Your task to perform on an android device: Open sound settings Image 0: 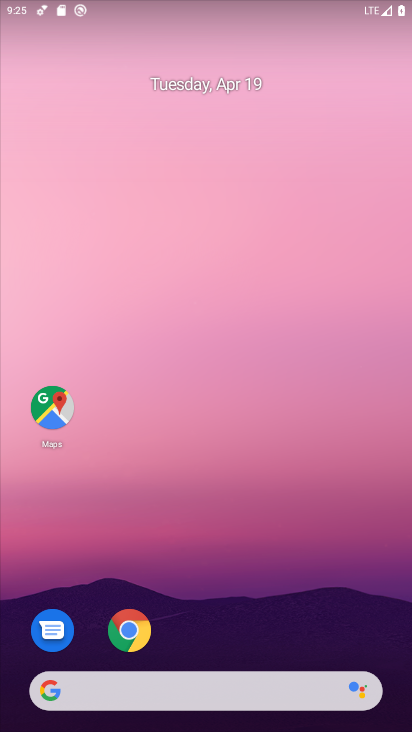
Step 0: drag from (190, 663) to (246, 131)
Your task to perform on an android device: Open sound settings Image 1: 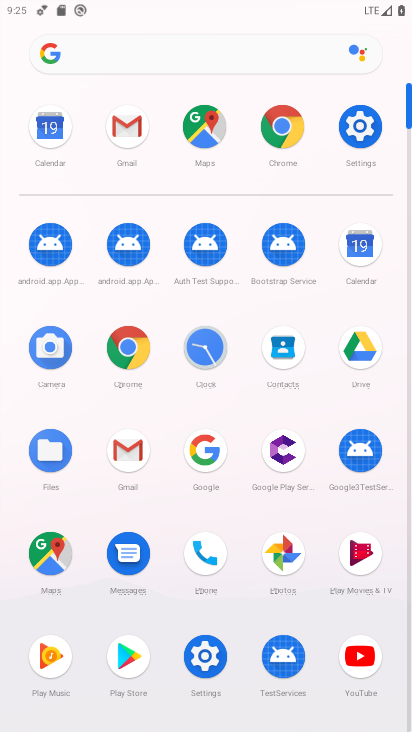
Step 1: click (367, 132)
Your task to perform on an android device: Open sound settings Image 2: 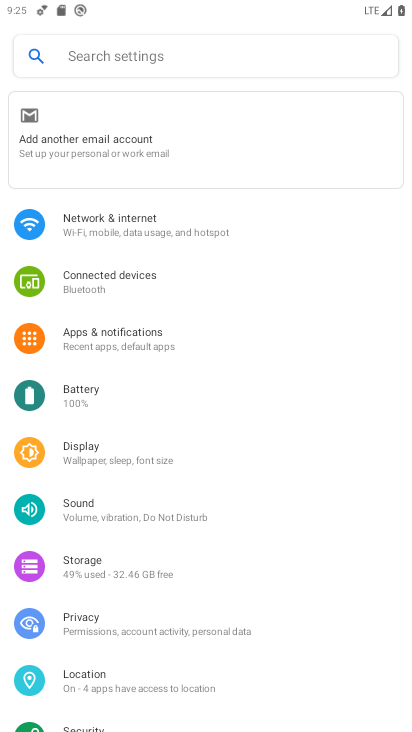
Step 2: click (156, 511)
Your task to perform on an android device: Open sound settings Image 3: 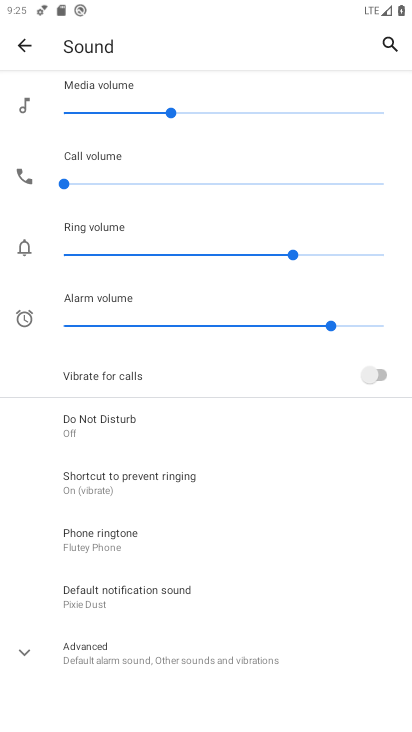
Step 3: task complete